Your task to perform on an android device: Open the stopwatch Image 0: 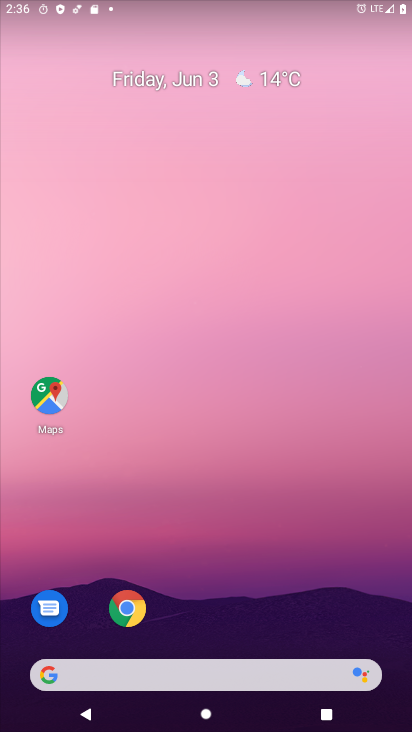
Step 0: drag from (177, 681) to (209, 183)
Your task to perform on an android device: Open the stopwatch Image 1: 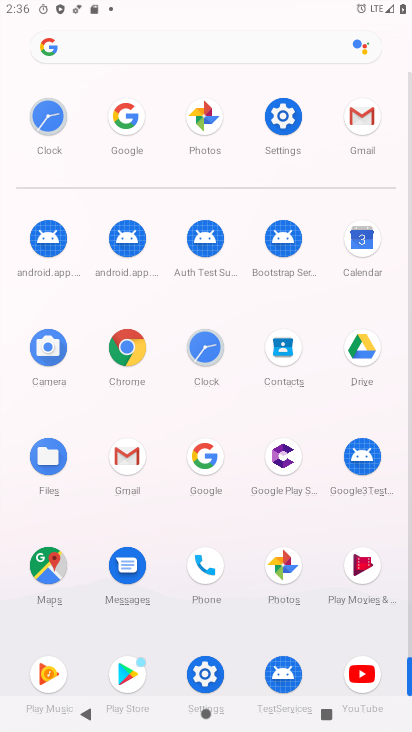
Step 1: click (204, 355)
Your task to perform on an android device: Open the stopwatch Image 2: 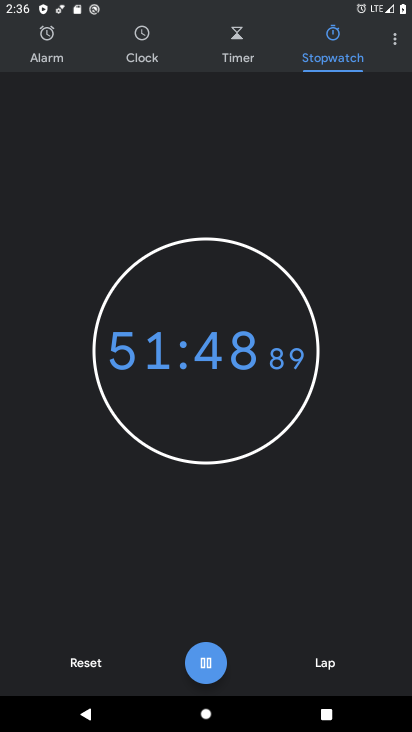
Step 2: click (323, 56)
Your task to perform on an android device: Open the stopwatch Image 3: 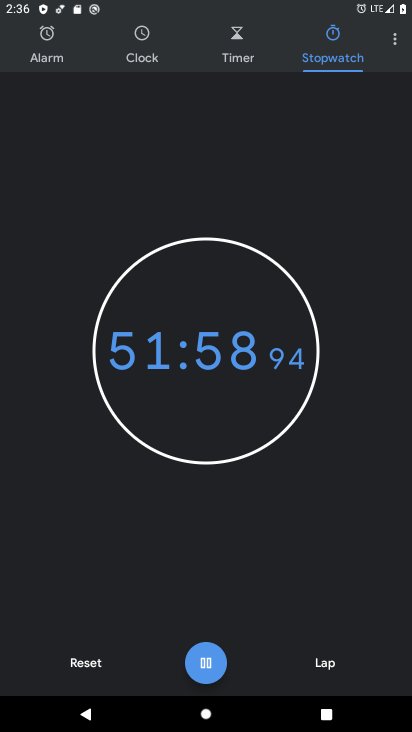
Step 3: task complete